Your task to perform on an android device: Open Chrome and go to settings Image 0: 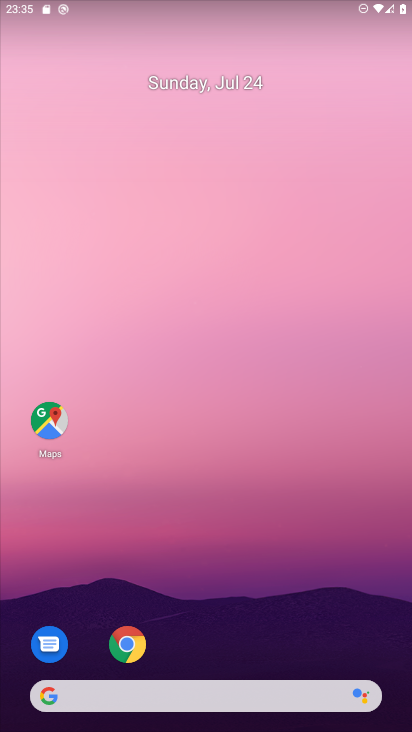
Step 0: click (127, 646)
Your task to perform on an android device: Open Chrome and go to settings Image 1: 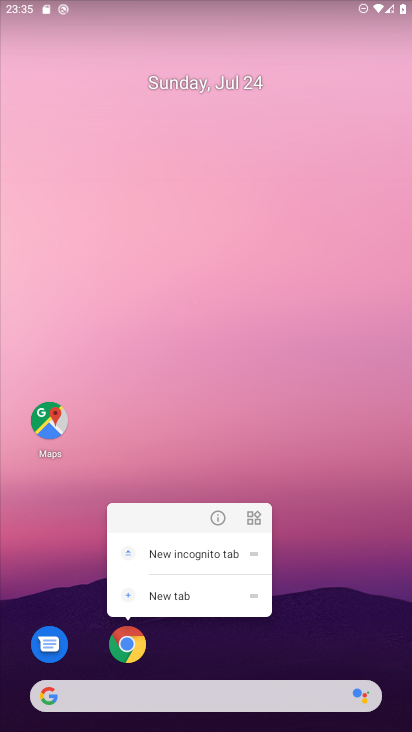
Step 1: click (127, 646)
Your task to perform on an android device: Open Chrome and go to settings Image 2: 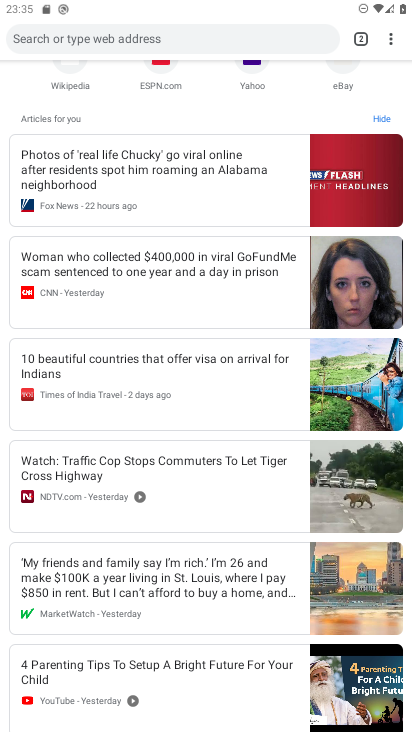
Step 2: click (389, 48)
Your task to perform on an android device: Open Chrome and go to settings Image 3: 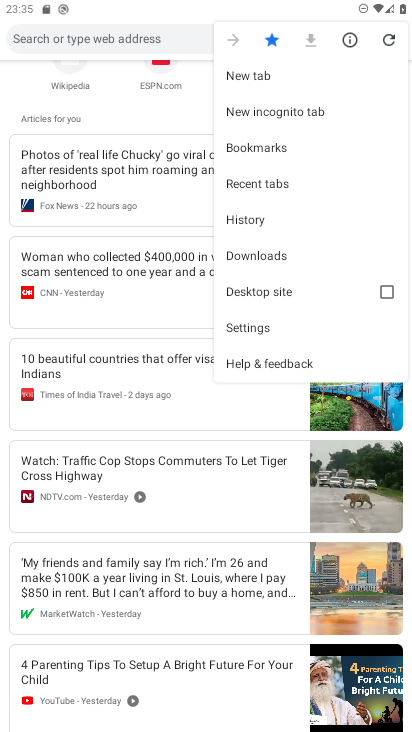
Step 3: click (244, 332)
Your task to perform on an android device: Open Chrome and go to settings Image 4: 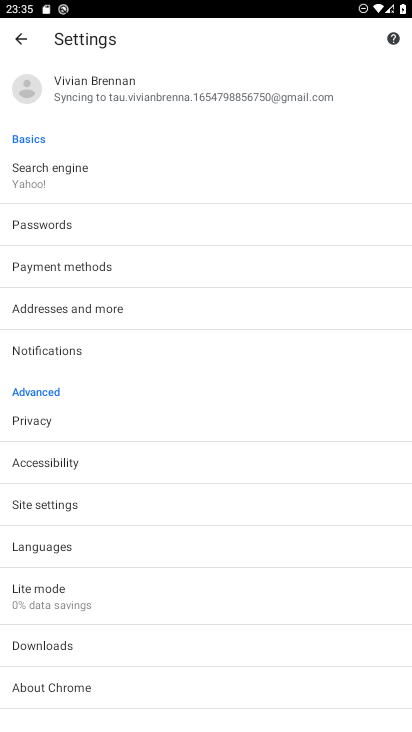
Step 4: task complete